Your task to perform on an android device: turn off translation in the chrome app Image 0: 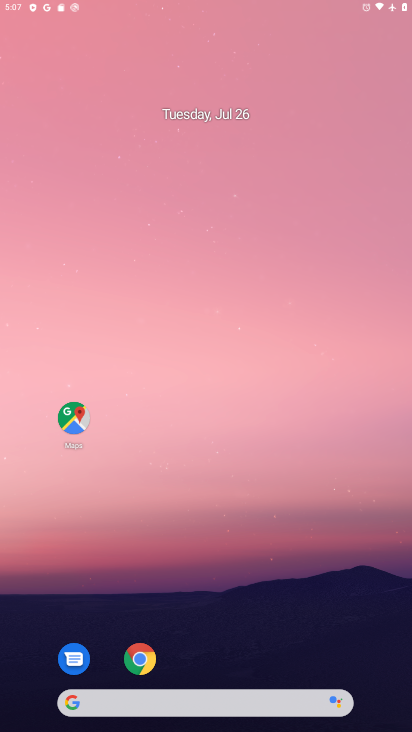
Step 0: press home button
Your task to perform on an android device: turn off translation in the chrome app Image 1: 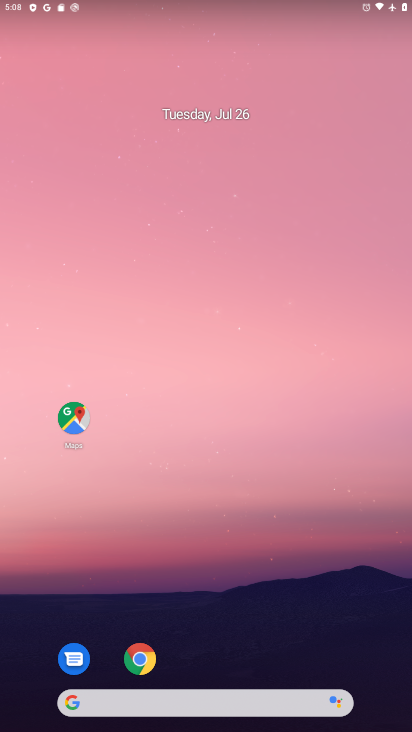
Step 1: drag from (217, 660) to (239, 3)
Your task to perform on an android device: turn off translation in the chrome app Image 2: 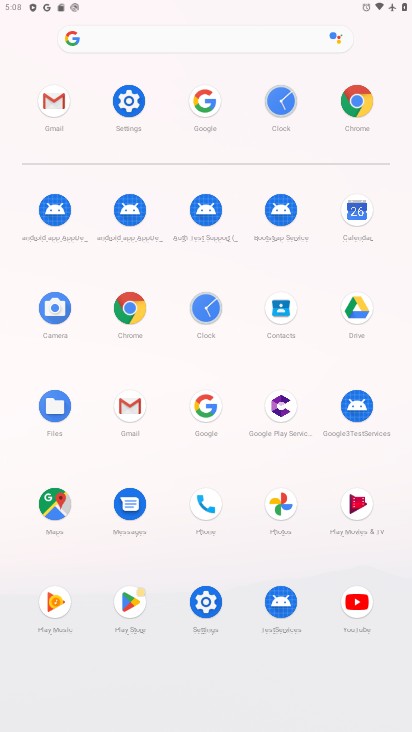
Step 2: click (122, 301)
Your task to perform on an android device: turn off translation in the chrome app Image 3: 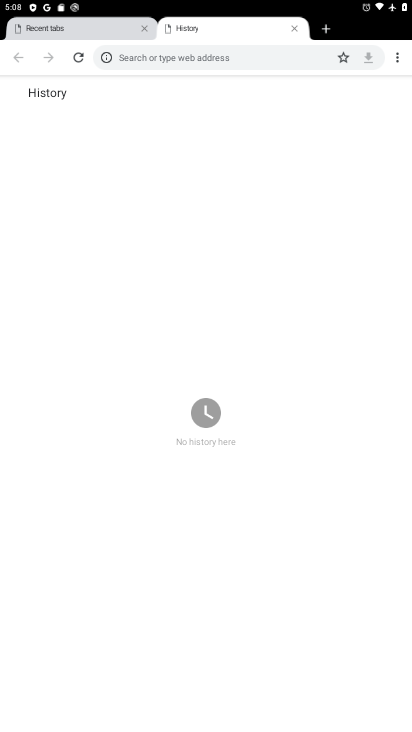
Step 3: click (394, 55)
Your task to perform on an android device: turn off translation in the chrome app Image 4: 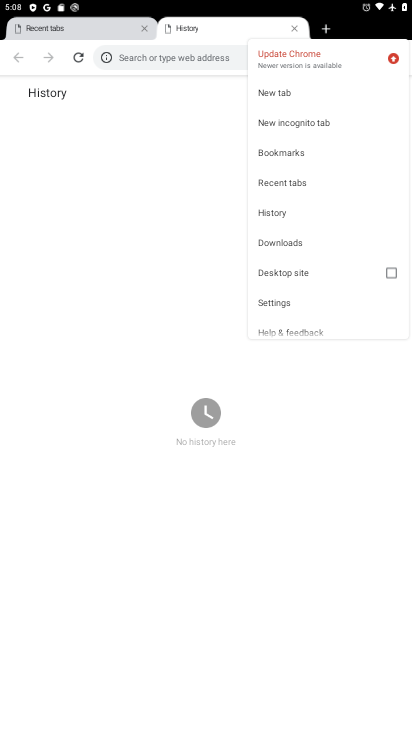
Step 4: click (297, 298)
Your task to perform on an android device: turn off translation in the chrome app Image 5: 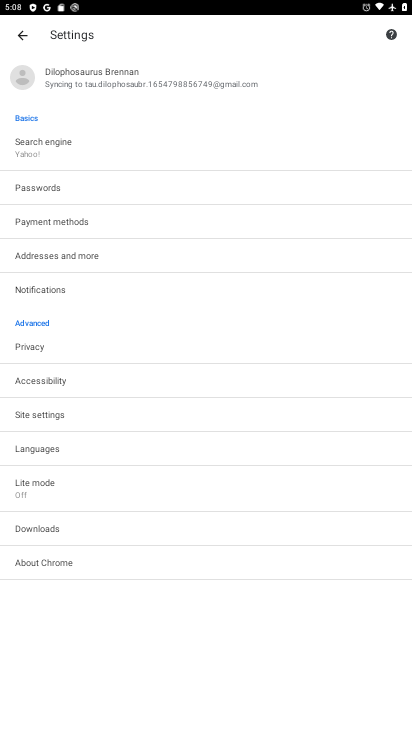
Step 5: click (72, 453)
Your task to perform on an android device: turn off translation in the chrome app Image 6: 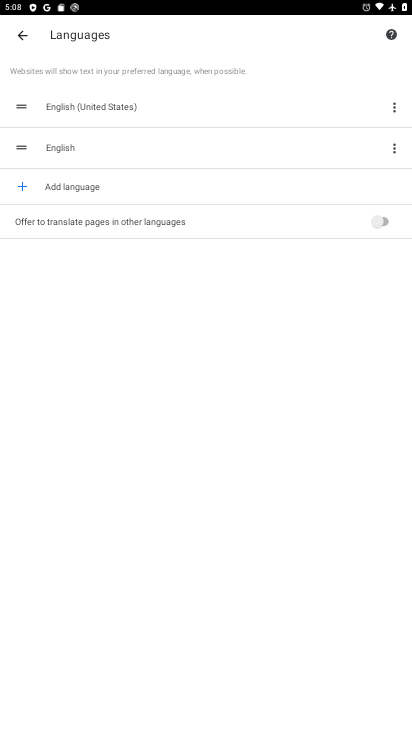
Step 6: task complete